Your task to perform on an android device: choose inbox layout in the gmail app Image 0: 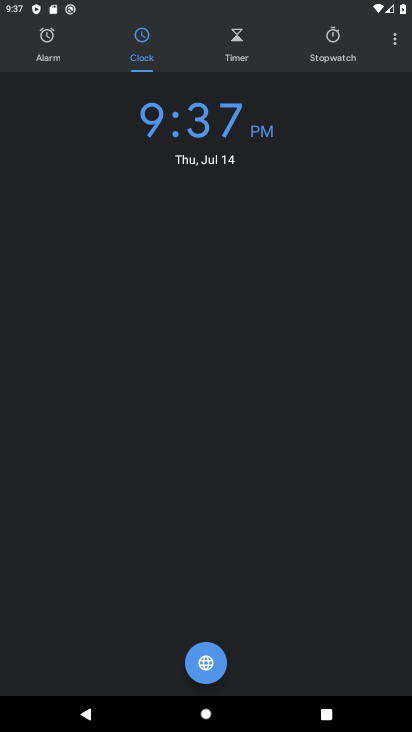
Step 0: press home button
Your task to perform on an android device: choose inbox layout in the gmail app Image 1: 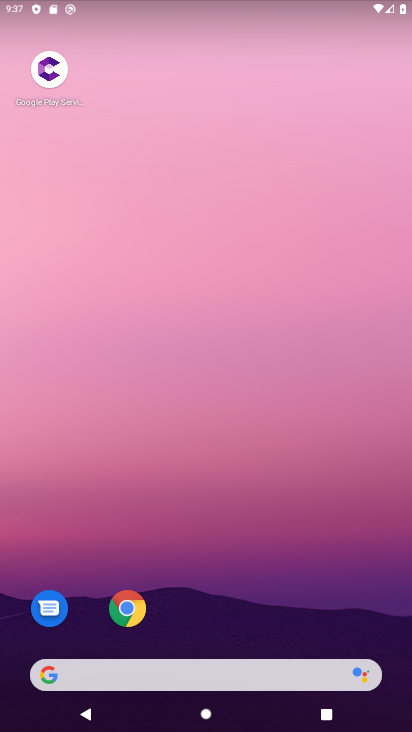
Step 1: drag from (235, 604) to (318, 143)
Your task to perform on an android device: choose inbox layout in the gmail app Image 2: 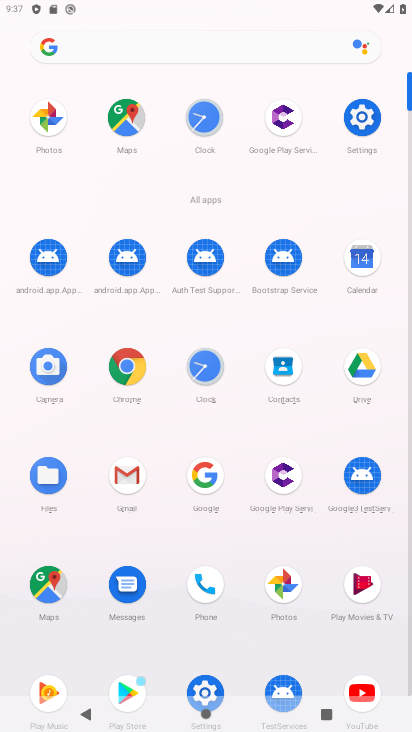
Step 2: click (127, 483)
Your task to perform on an android device: choose inbox layout in the gmail app Image 3: 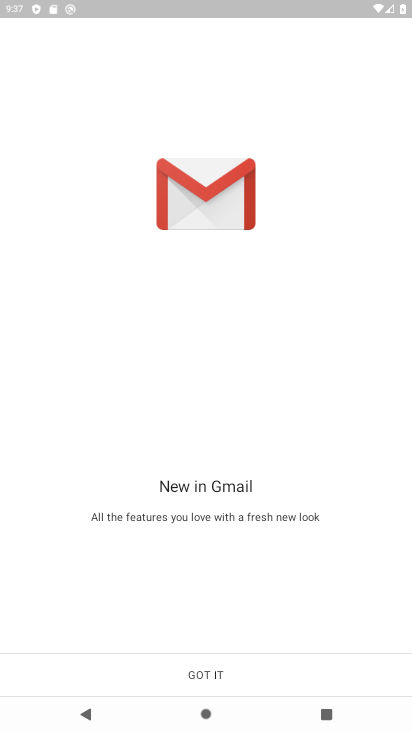
Step 3: click (278, 668)
Your task to perform on an android device: choose inbox layout in the gmail app Image 4: 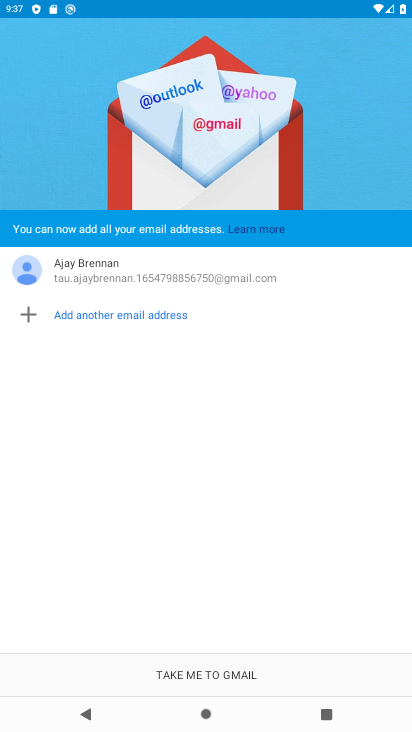
Step 4: click (280, 671)
Your task to perform on an android device: choose inbox layout in the gmail app Image 5: 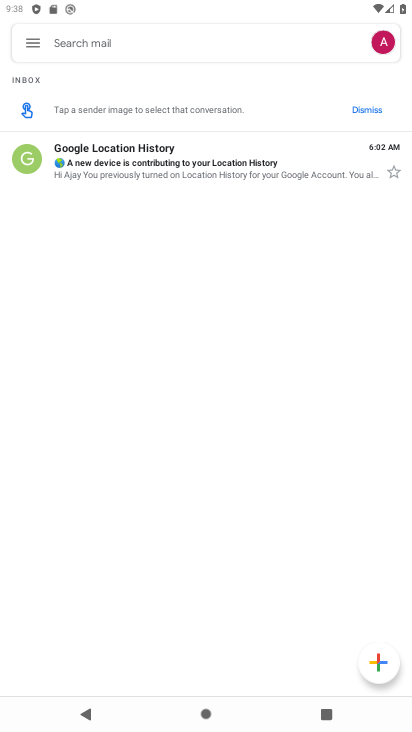
Step 5: click (33, 37)
Your task to perform on an android device: choose inbox layout in the gmail app Image 6: 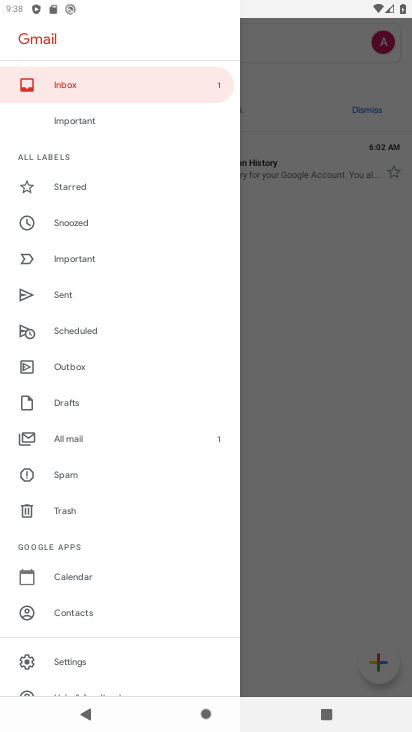
Step 6: click (116, 662)
Your task to perform on an android device: choose inbox layout in the gmail app Image 7: 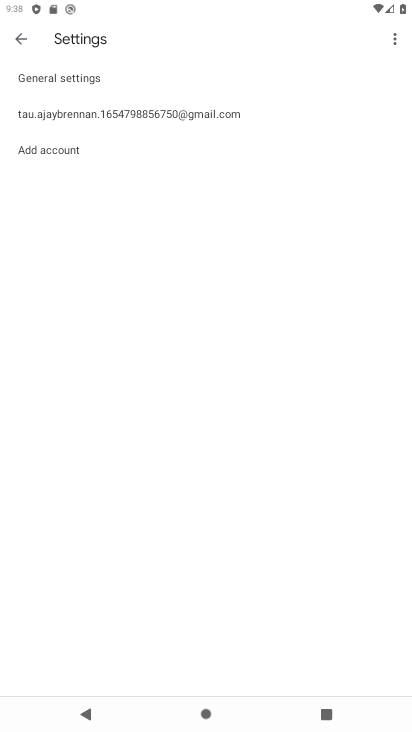
Step 7: click (123, 118)
Your task to perform on an android device: choose inbox layout in the gmail app Image 8: 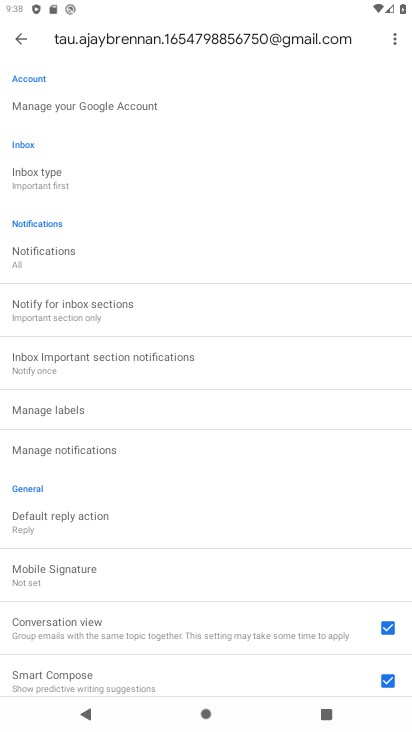
Step 8: click (79, 174)
Your task to perform on an android device: choose inbox layout in the gmail app Image 9: 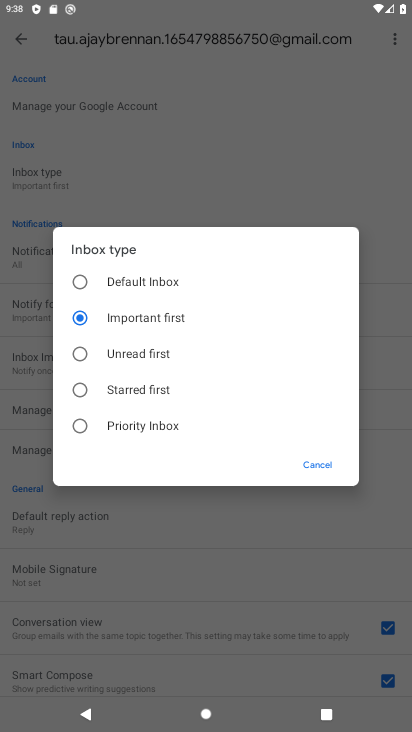
Step 9: click (130, 274)
Your task to perform on an android device: choose inbox layout in the gmail app Image 10: 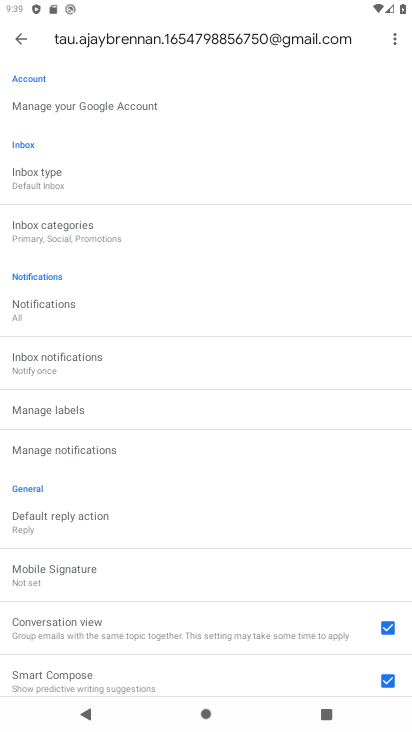
Step 10: task complete